Your task to perform on an android device: see sites visited before in the chrome app Image 0: 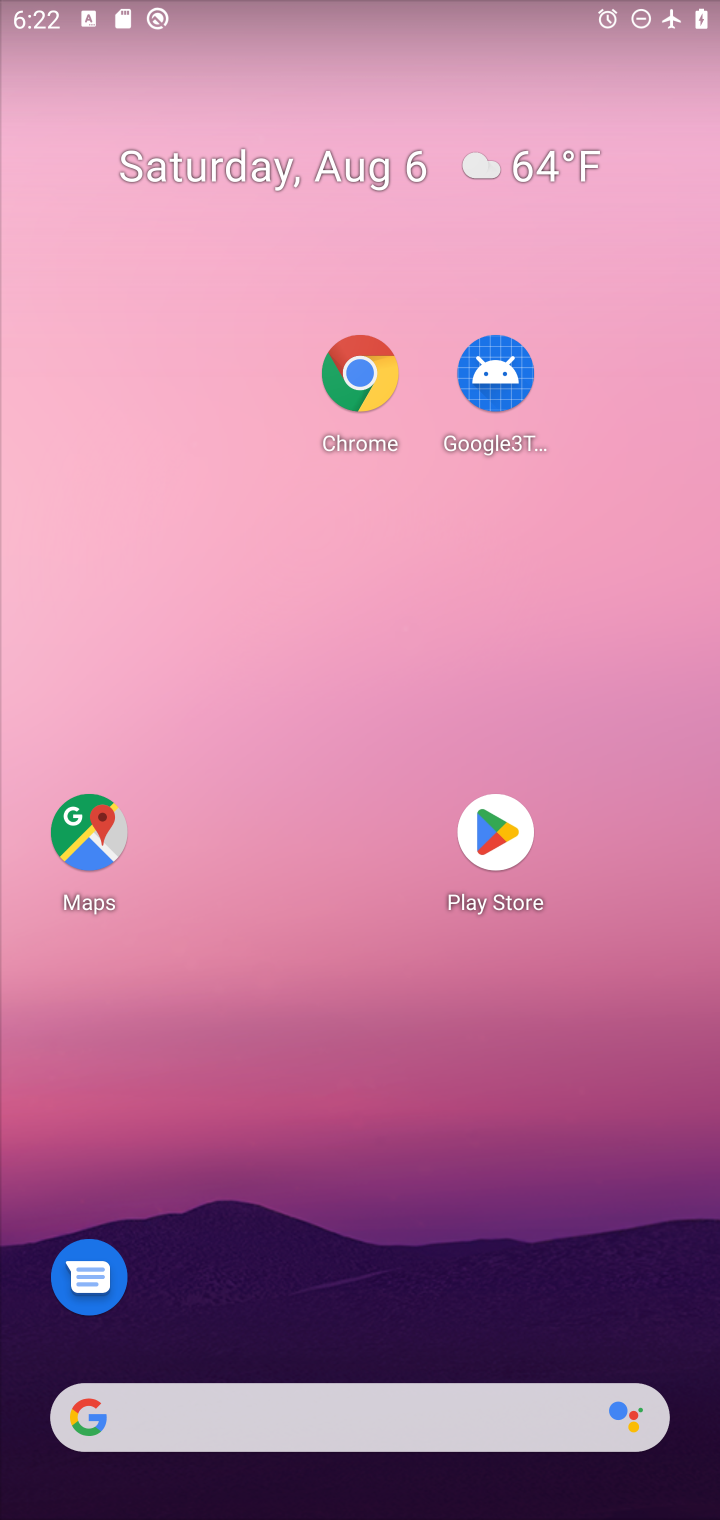
Step 0: drag from (414, 1423) to (391, 234)
Your task to perform on an android device: see sites visited before in the chrome app Image 1: 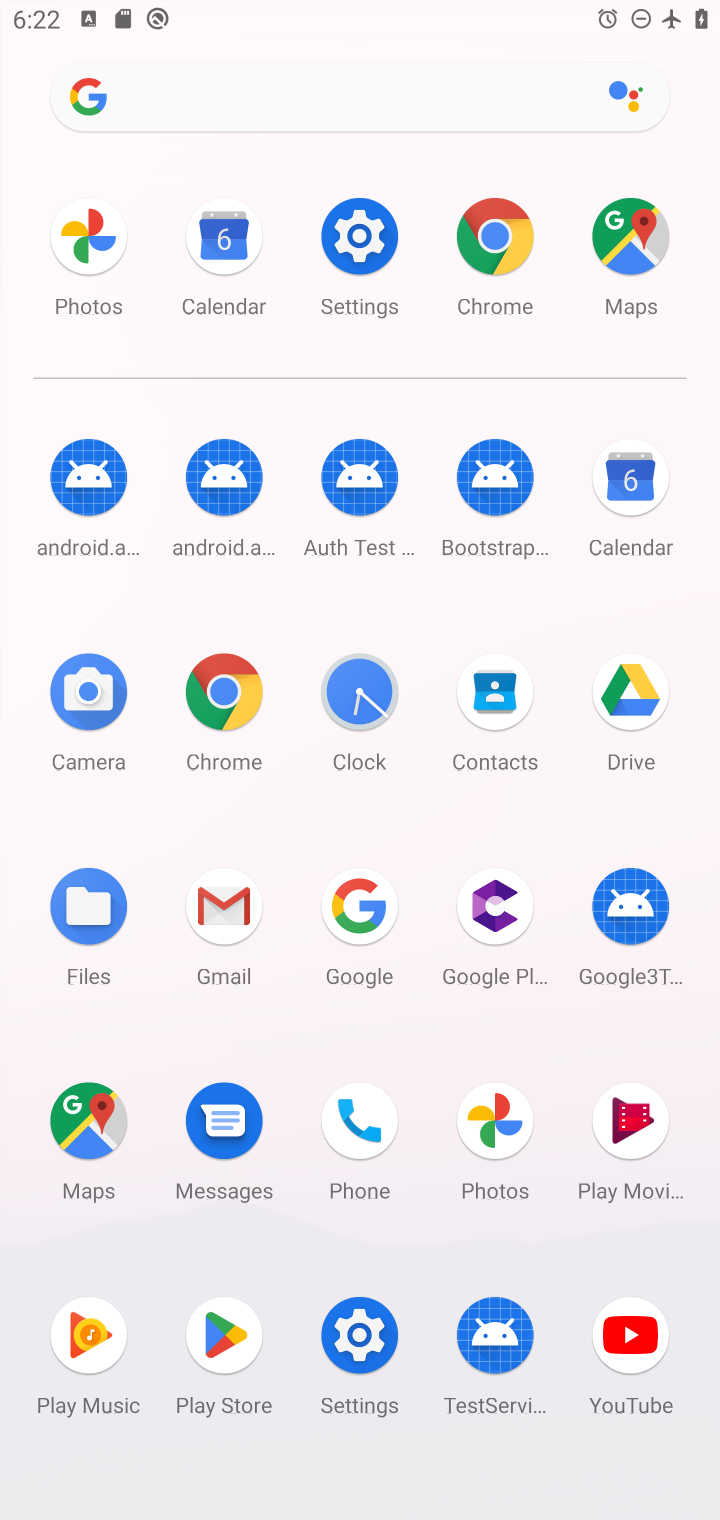
Step 1: click (224, 715)
Your task to perform on an android device: see sites visited before in the chrome app Image 2: 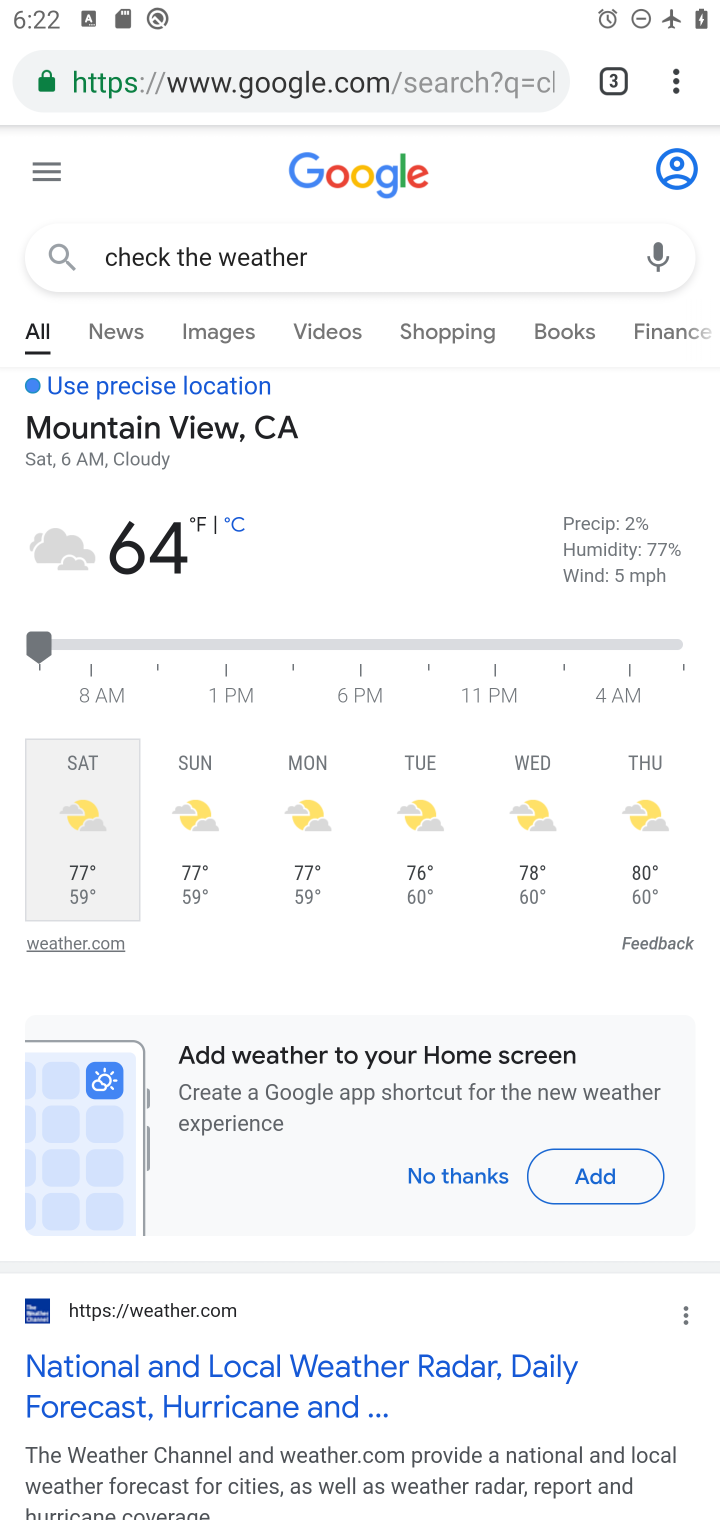
Step 2: click (224, 715)
Your task to perform on an android device: see sites visited before in the chrome app Image 3: 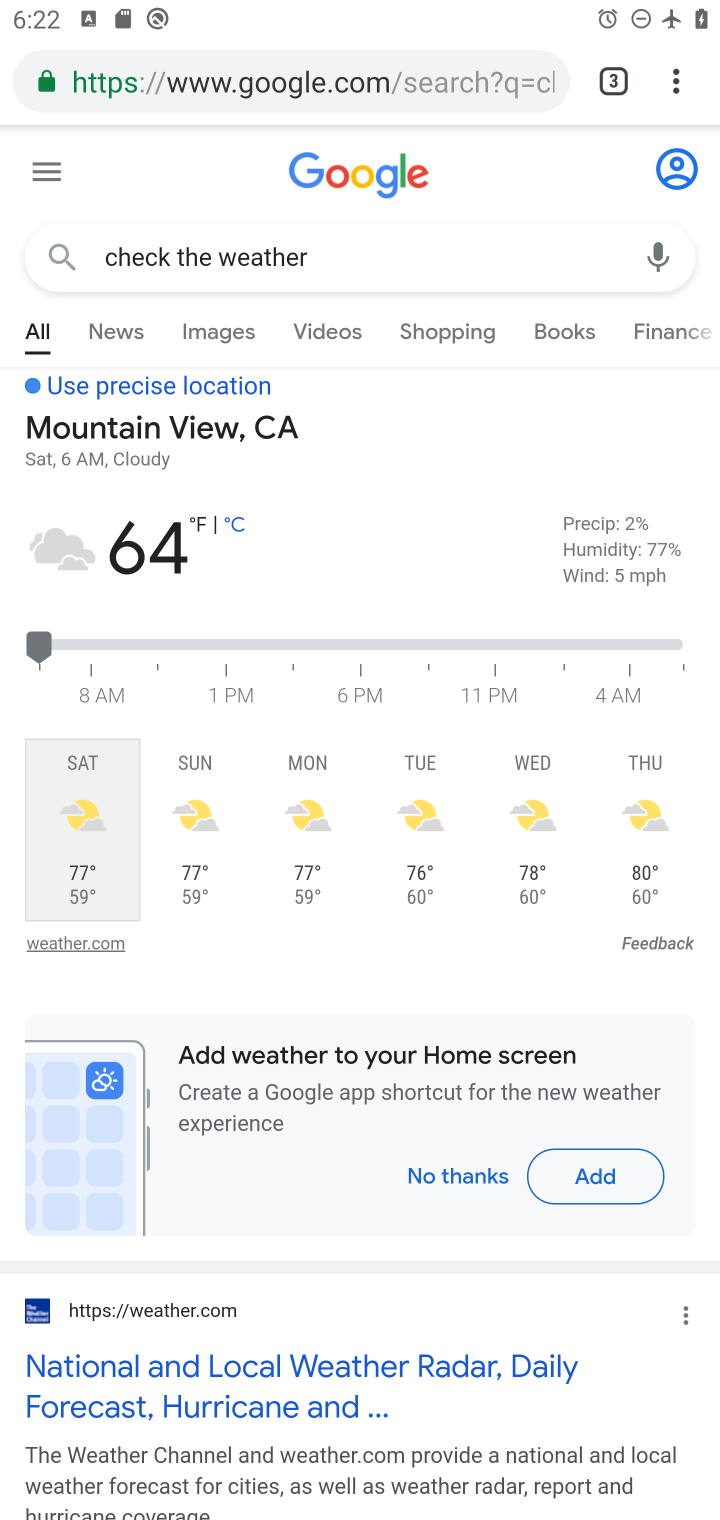
Step 3: click (669, 74)
Your task to perform on an android device: see sites visited before in the chrome app Image 4: 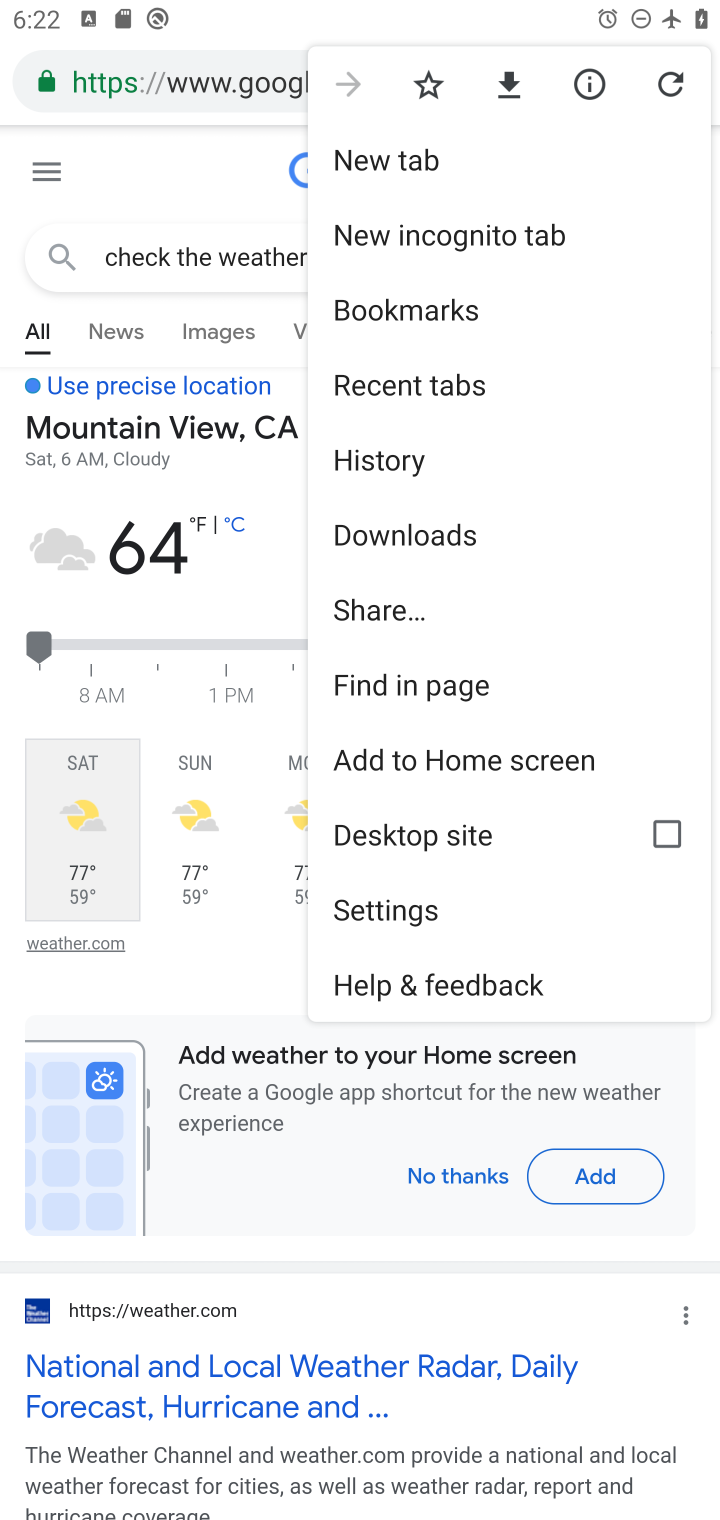
Step 4: click (408, 398)
Your task to perform on an android device: see sites visited before in the chrome app Image 5: 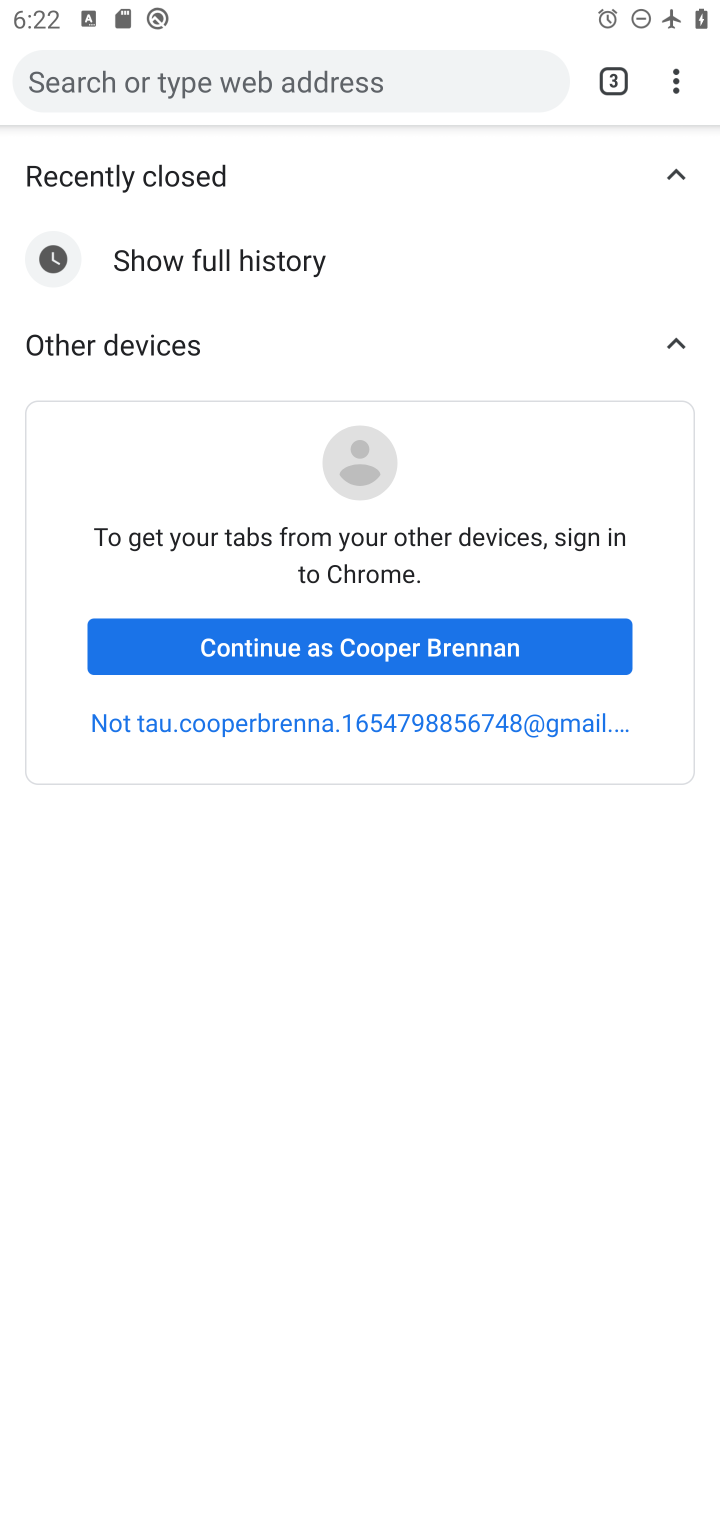
Step 5: task complete